Your task to perform on an android device: Open the web browser Image 0: 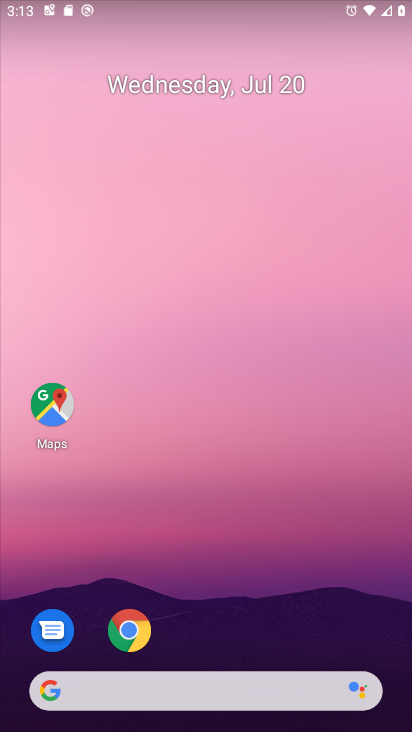
Step 0: drag from (262, 619) to (320, 239)
Your task to perform on an android device: Open the web browser Image 1: 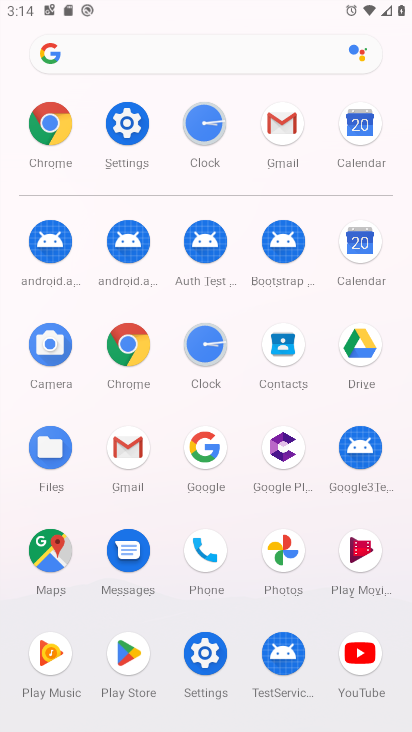
Step 1: click (63, 134)
Your task to perform on an android device: Open the web browser Image 2: 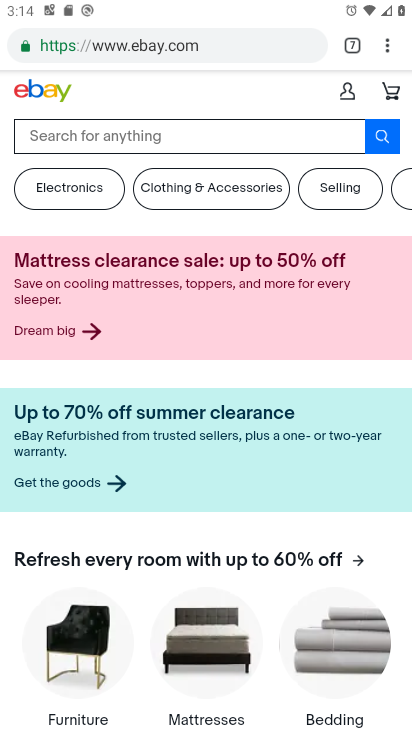
Step 2: task complete